Your task to perform on an android device: turn off smart reply in the gmail app Image 0: 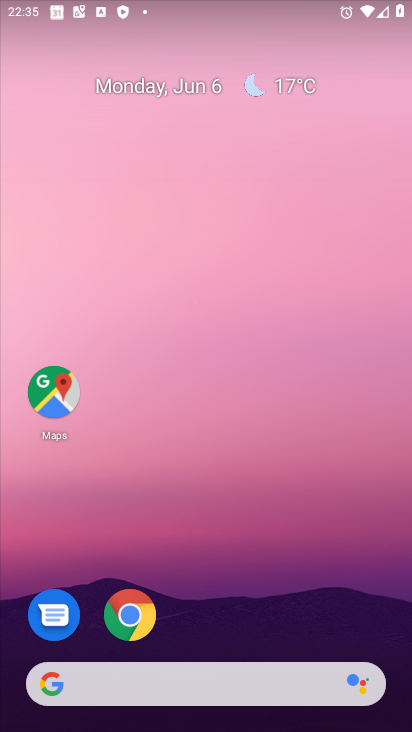
Step 0: drag from (392, 710) to (286, 113)
Your task to perform on an android device: turn off smart reply in the gmail app Image 1: 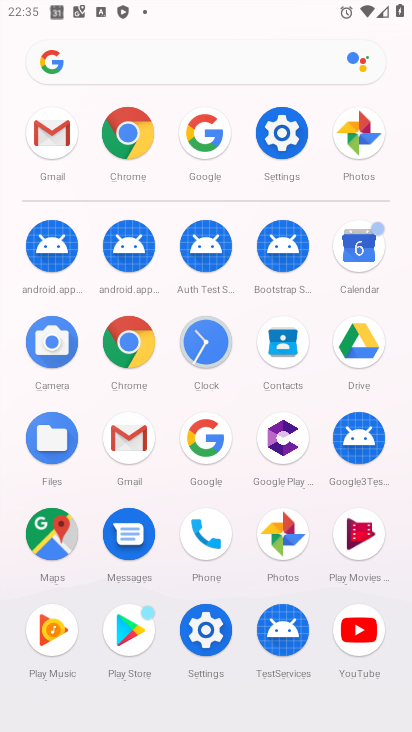
Step 1: click (134, 451)
Your task to perform on an android device: turn off smart reply in the gmail app Image 2: 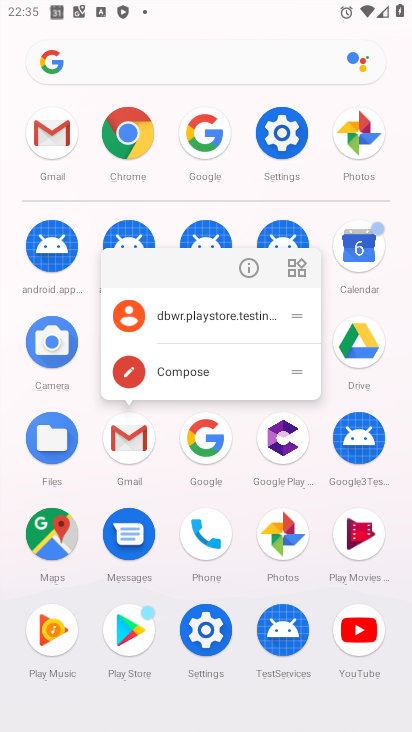
Step 2: click (116, 445)
Your task to perform on an android device: turn off smart reply in the gmail app Image 3: 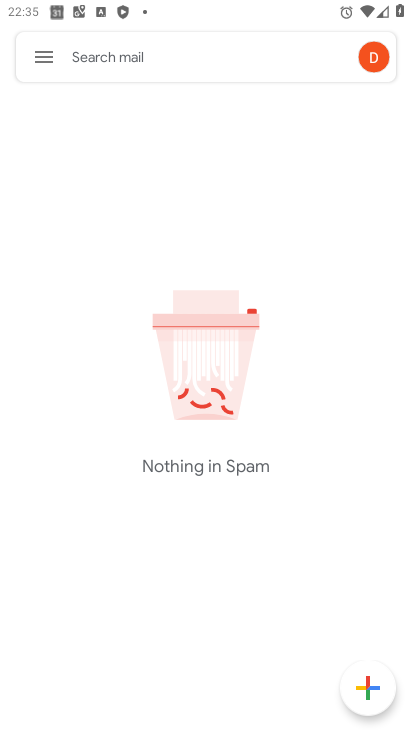
Step 3: click (36, 56)
Your task to perform on an android device: turn off smart reply in the gmail app Image 4: 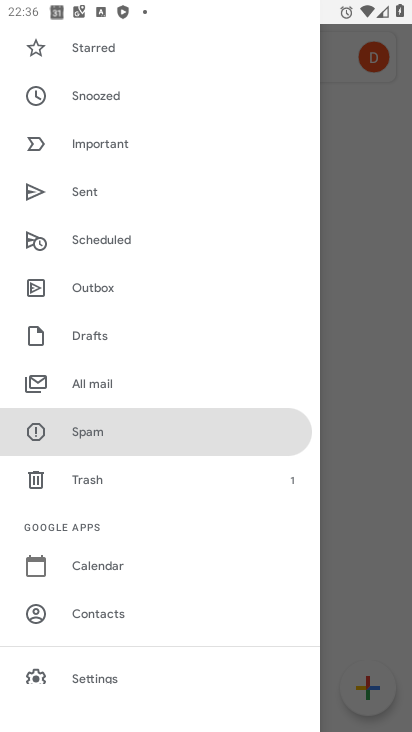
Step 4: click (91, 688)
Your task to perform on an android device: turn off smart reply in the gmail app Image 5: 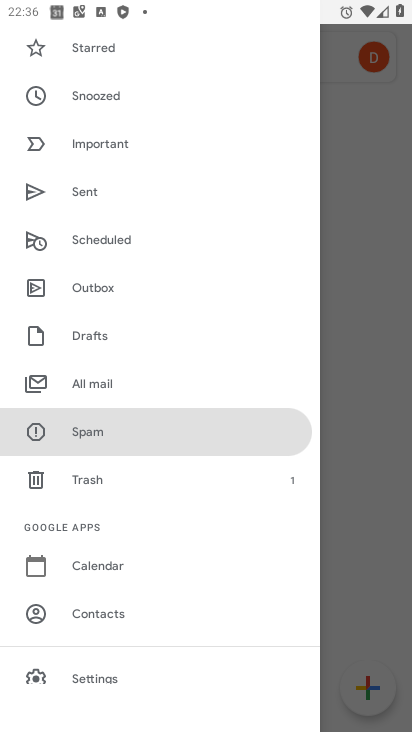
Step 5: click (88, 673)
Your task to perform on an android device: turn off smart reply in the gmail app Image 6: 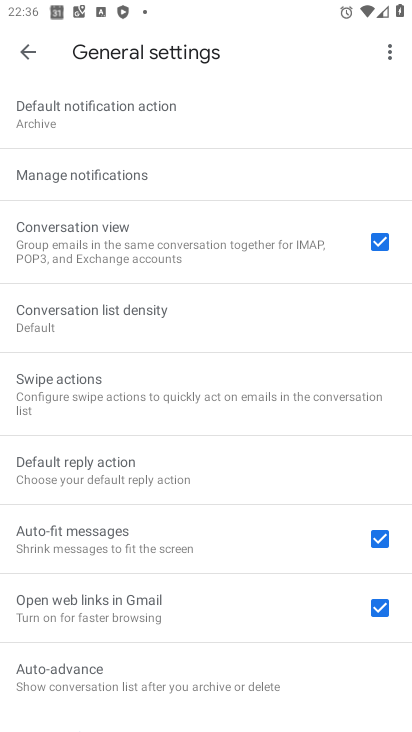
Step 6: drag from (209, 650) to (195, 170)
Your task to perform on an android device: turn off smart reply in the gmail app Image 7: 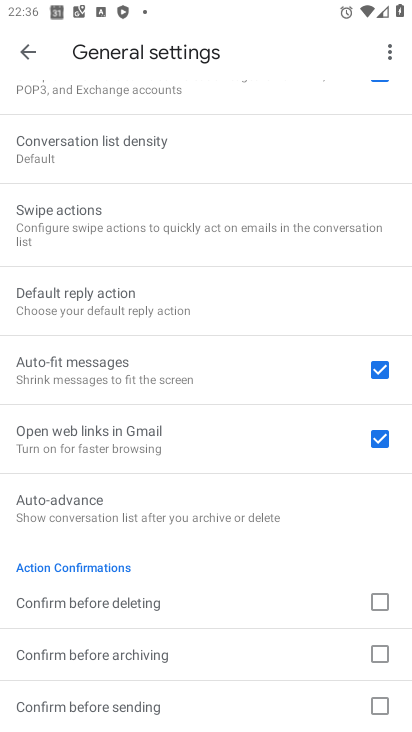
Step 7: drag from (163, 643) to (175, 354)
Your task to perform on an android device: turn off smart reply in the gmail app Image 8: 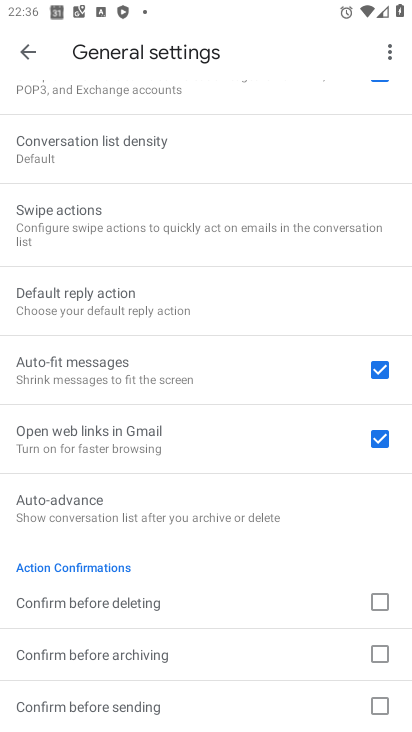
Step 8: drag from (285, 631) to (270, 228)
Your task to perform on an android device: turn off smart reply in the gmail app Image 9: 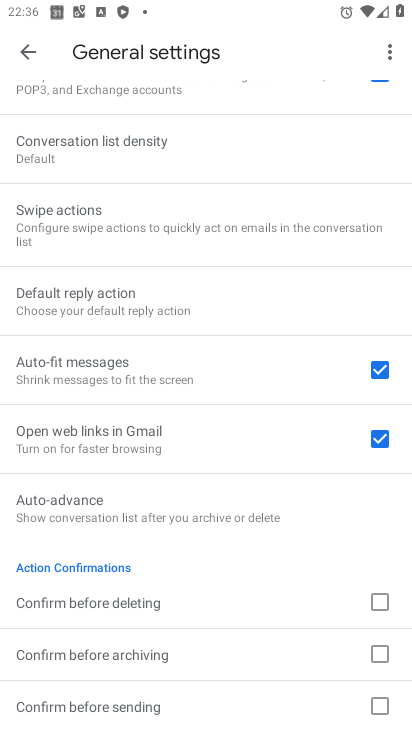
Step 9: click (28, 43)
Your task to perform on an android device: turn off smart reply in the gmail app Image 10: 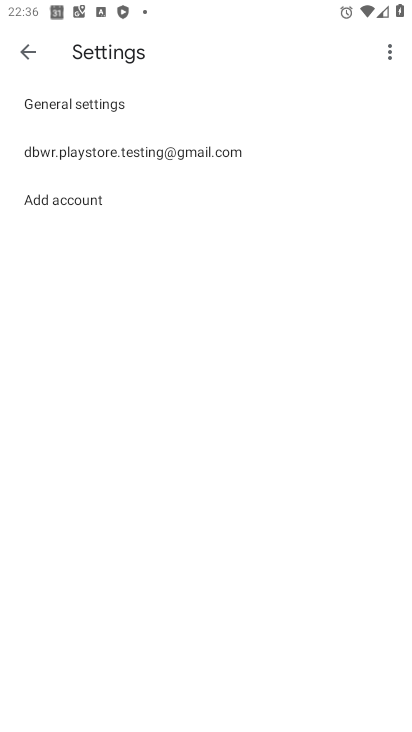
Step 10: click (112, 151)
Your task to perform on an android device: turn off smart reply in the gmail app Image 11: 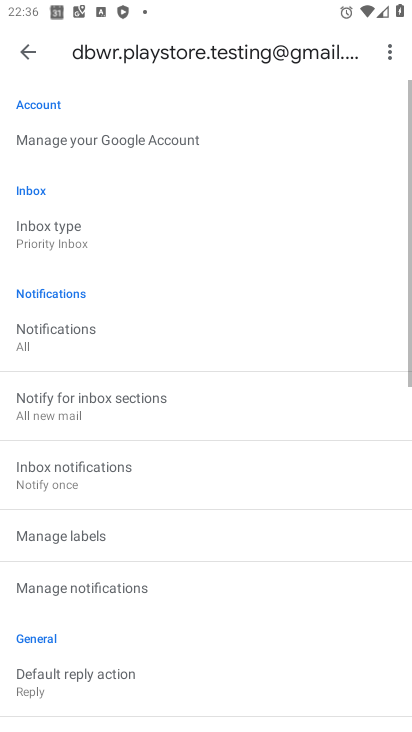
Step 11: drag from (313, 683) to (294, 290)
Your task to perform on an android device: turn off smart reply in the gmail app Image 12: 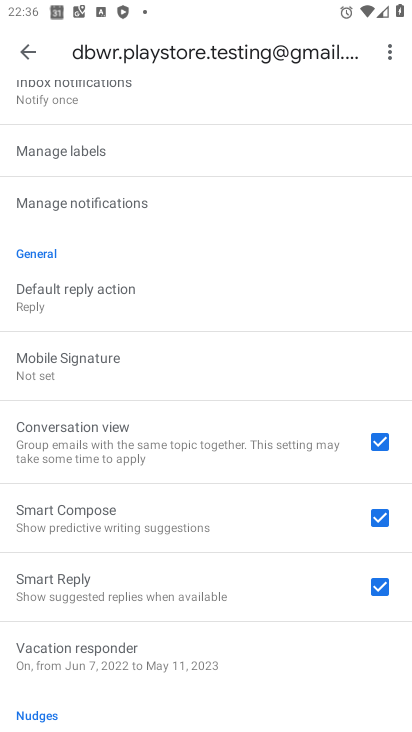
Step 12: click (367, 590)
Your task to perform on an android device: turn off smart reply in the gmail app Image 13: 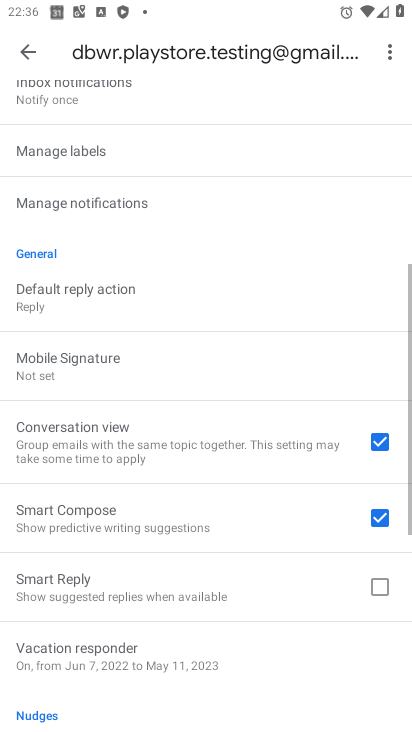
Step 13: task complete